Your task to perform on an android device: open device folders in google photos Image 0: 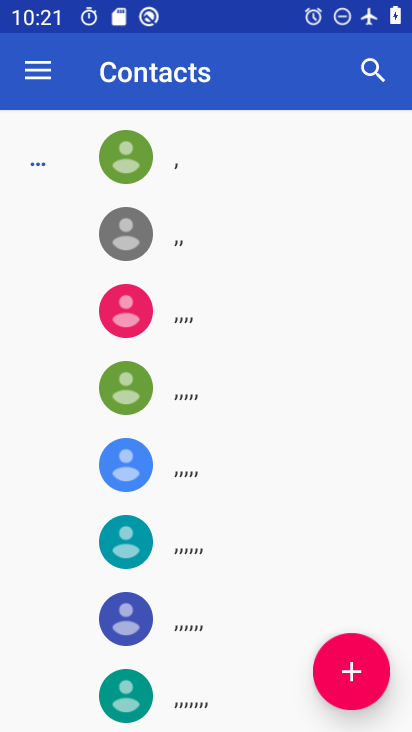
Step 0: press home button
Your task to perform on an android device: open device folders in google photos Image 1: 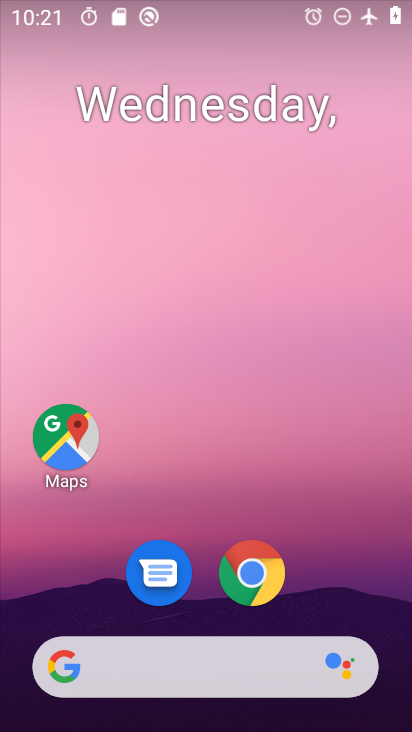
Step 1: drag from (248, 673) to (314, 400)
Your task to perform on an android device: open device folders in google photos Image 2: 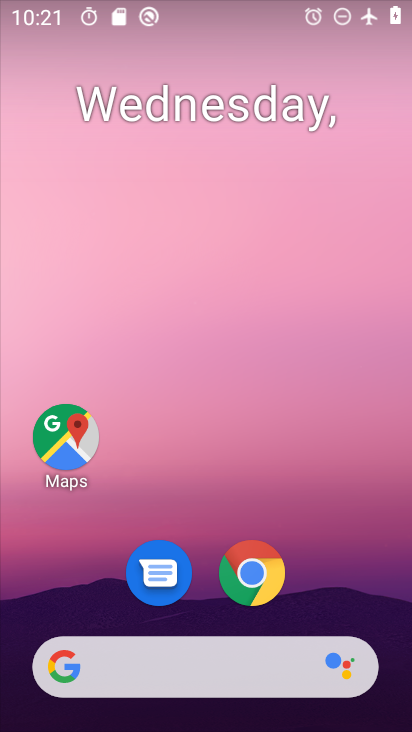
Step 2: drag from (259, 679) to (264, 341)
Your task to perform on an android device: open device folders in google photos Image 3: 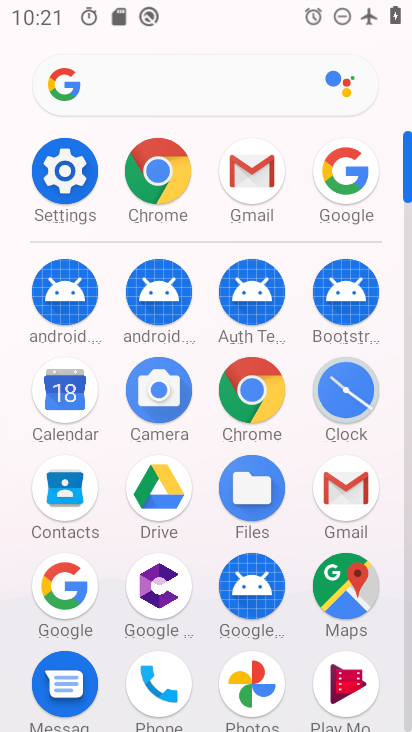
Step 3: drag from (261, 527) to (300, 134)
Your task to perform on an android device: open device folders in google photos Image 4: 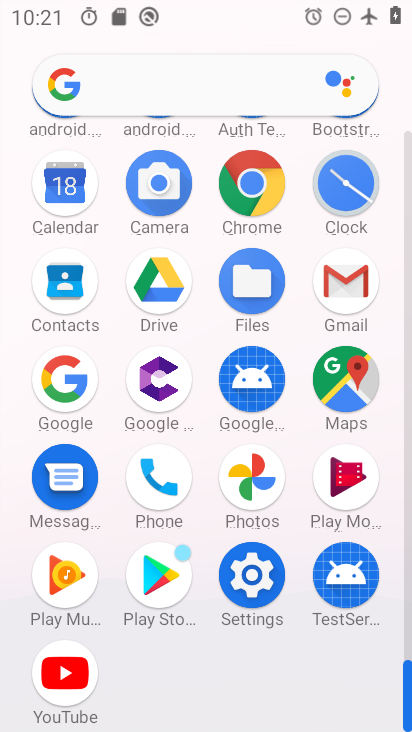
Step 4: click (272, 488)
Your task to perform on an android device: open device folders in google photos Image 5: 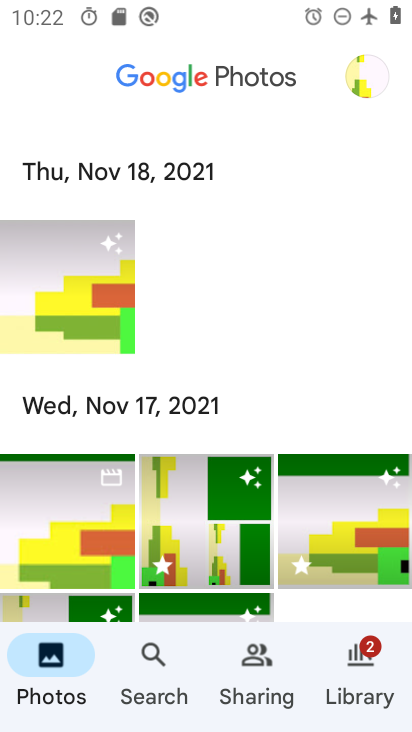
Step 5: click (366, 81)
Your task to perform on an android device: open device folders in google photos Image 6: 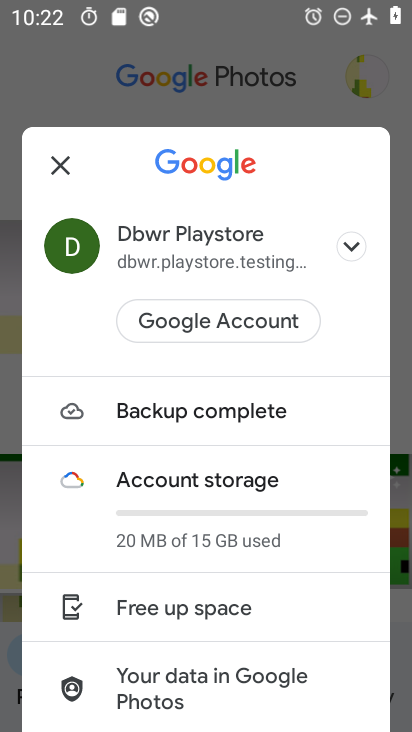
Step 6: task complete